Your task to perform on an android device: Toggle the flashlight Image 0: 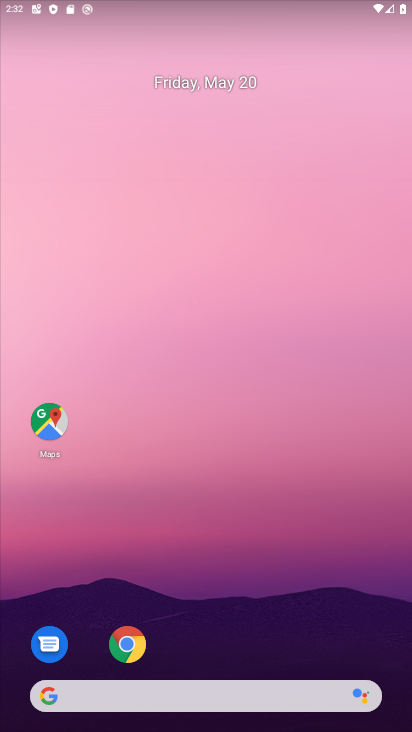
Step 0: drag from (330, 9) to (334, 681)
Your task to perform on an android device: Toggle the flashlight Image 1: 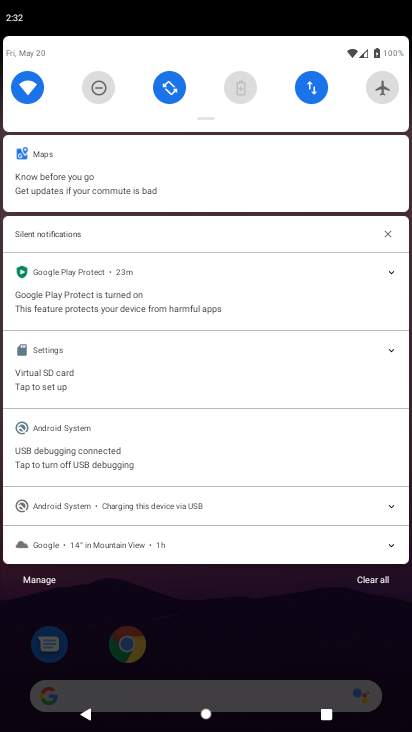
Step 1: drag from (291, 123) to (292, 716)
Your task to perform on an android device: Toggle the flashlight Image 2: 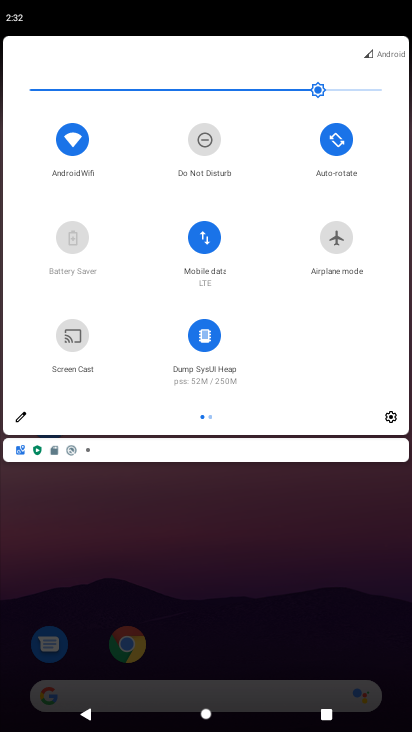
Step 2: click (17, 420)
Your task to perform on an android device: Toggle the flashlight Image 3: 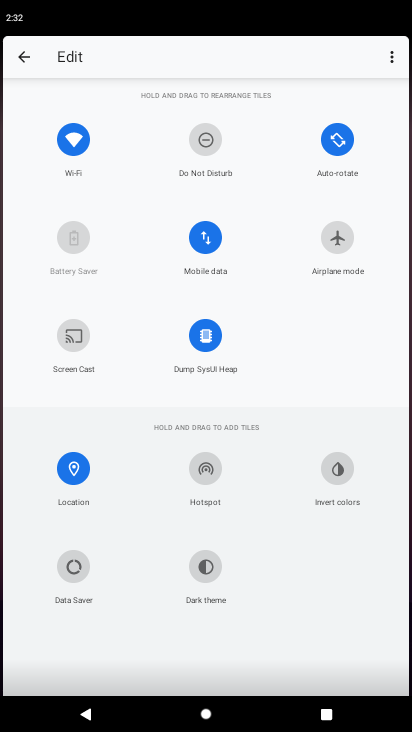
Step 3: task complete